Your task to perform on an android device: toggle wifi Image 0: 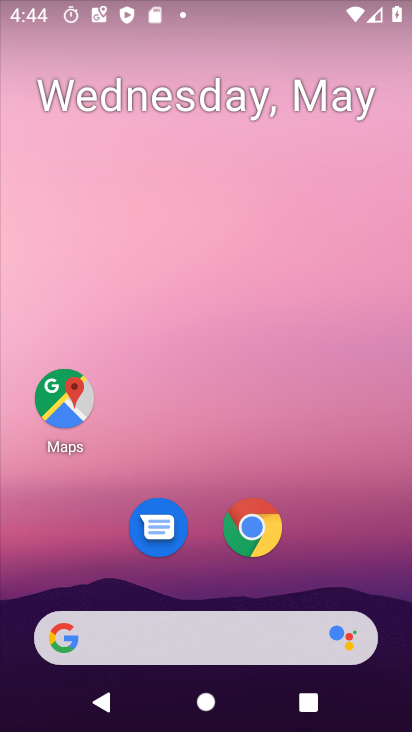
Step 0: drag from (198, 7) to (179, 400)
Your task to perform on an android device: toggle wifi Image 1: 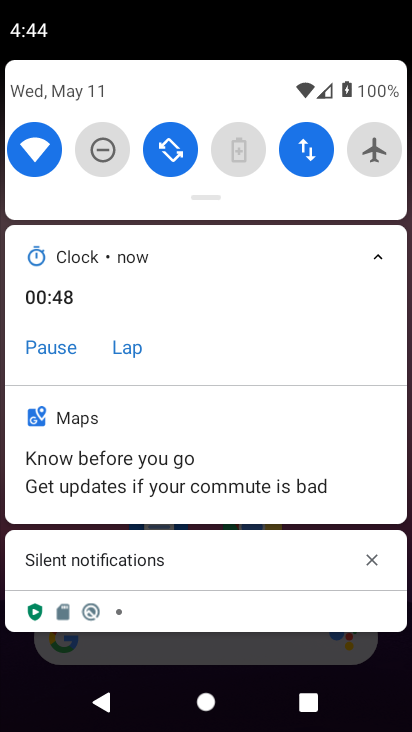
Step 1: click (31, 148)
Your task to perform on an android device: toggle wifi Image 2: 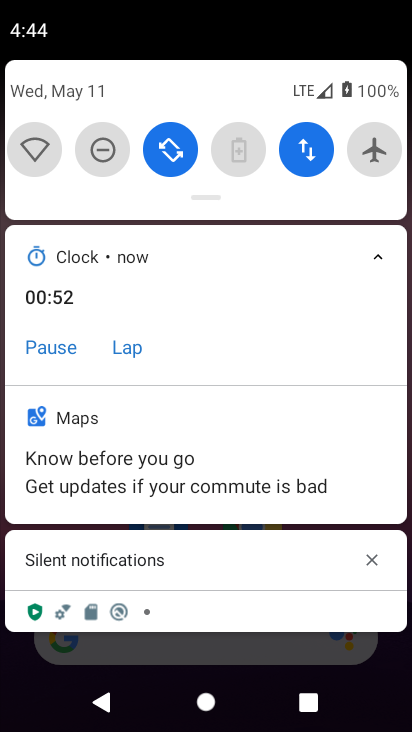
Step 2: task complete